Your task to perform on an android device: What's the weather going to be tomorrow? Image 0: 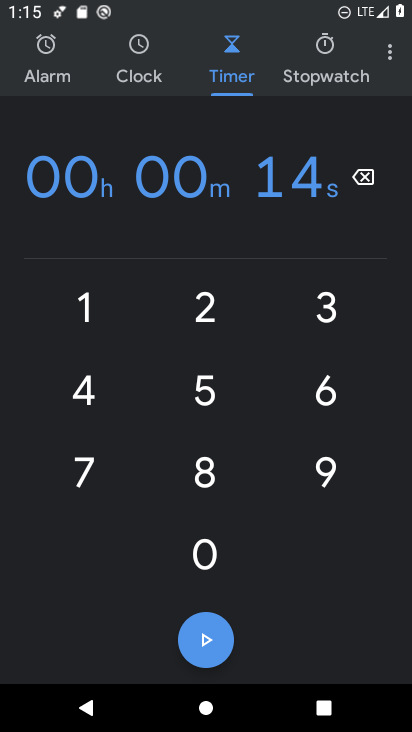
Step 0: press home button
Your task to perform on an android device: What's the weather going to be tomorrow? Image 1: 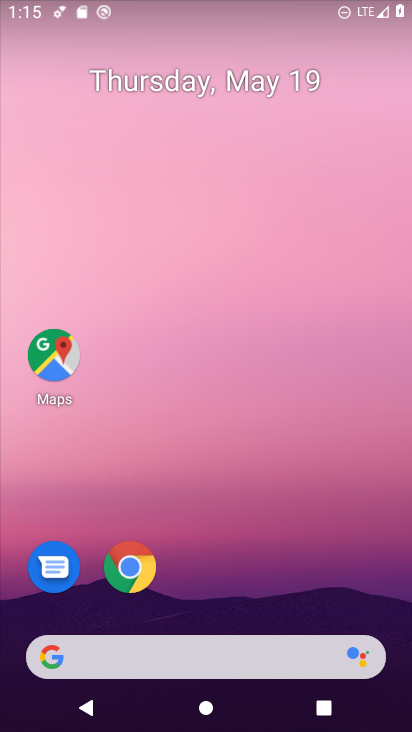
Step 1: click (184, 650)
Your task to perform on an android device: What's the weather going to be tomorrow? Image 2: 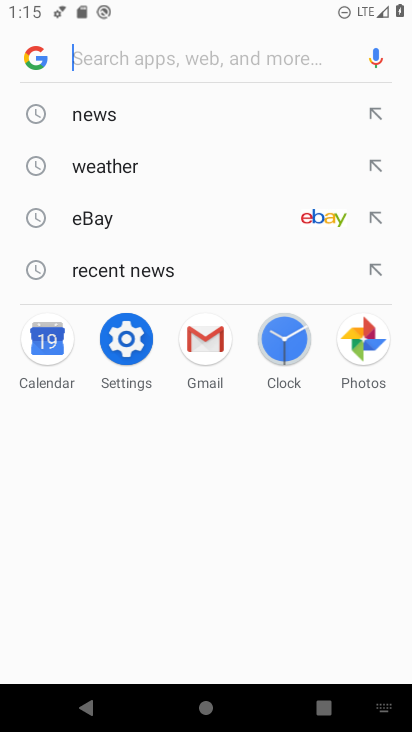
Step 2: click (98, 162)
Your task to perform on an android device: What's the weather going to be tomorrow? Image 3: 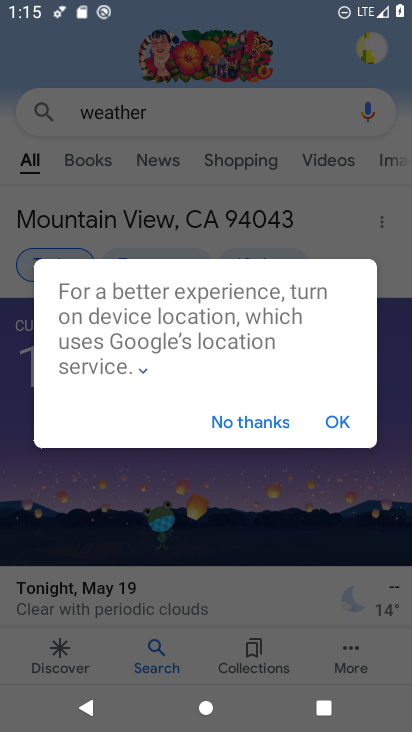
Step 3: click (238, 423)
Your task to perform on an android device: What's the weather going to be tomorrow? Image 4: 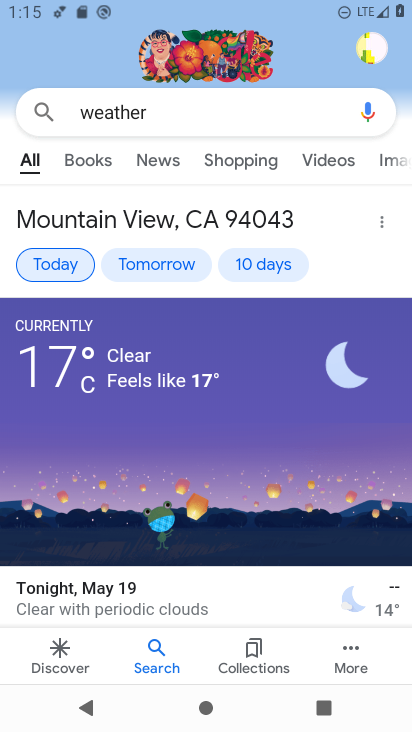
Step 4: click (63, 255)
Your task to perform on an android device: What's the weather going to be tomorrow? Image 5: 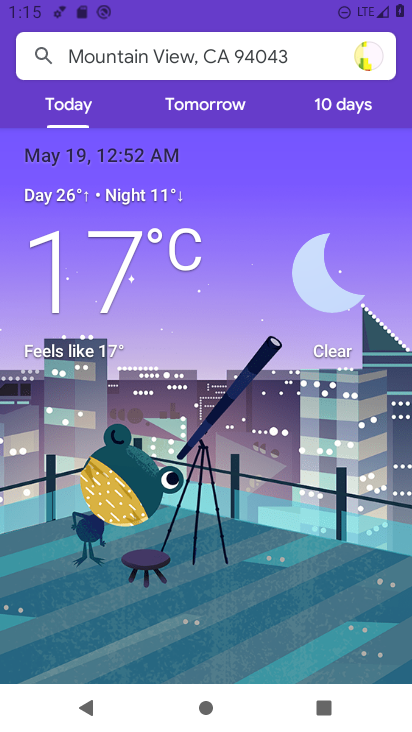
Step 5: click (197, 104)
Your task to perform on an android device: What's the weather going to be tomorrow? Image 6: 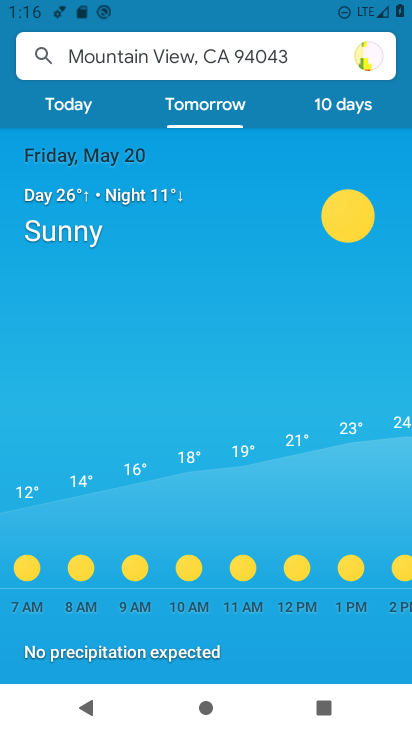
Step 6: task complete